Your task to perform on an android device: Show me the alarms in the clock app Image 0: 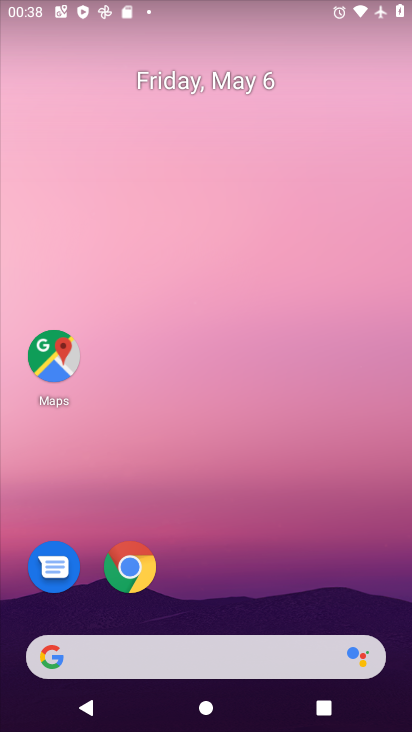
Step 0: drag from (242, 593) to (247, 106)
Your task to perform on an android device: Show me the alarms in the clock app Image 1: 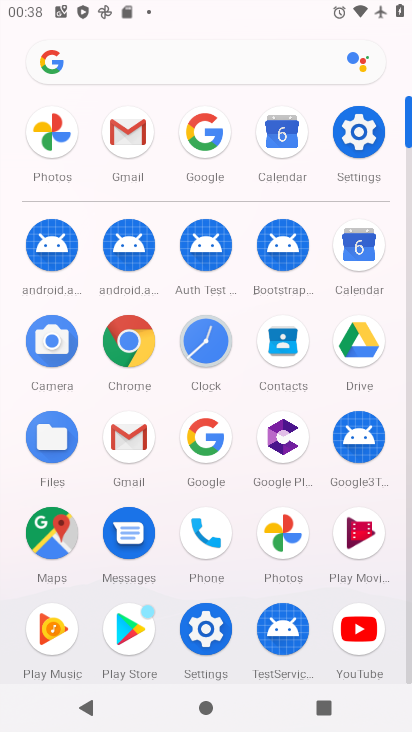
Step 1: click (209, 348)
Your task to perform on an android device: Show me the alarms in the clock app Image 2: 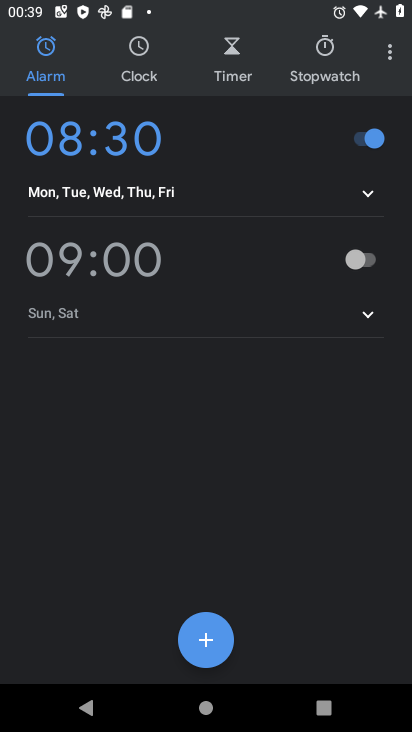
Step 2: click (393, 53)
Your task to perform on an android device: Show me the alarms in the clock app Image 3: 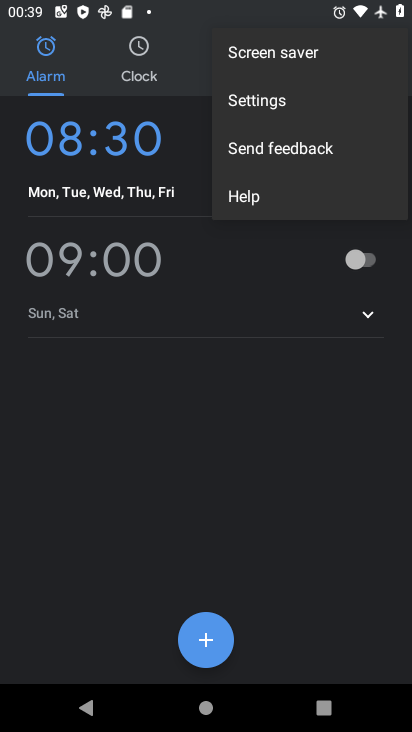
Step 3: click (174, 405)
Your task to perform on an android device: Show me the alarms in the clock app Image 4: 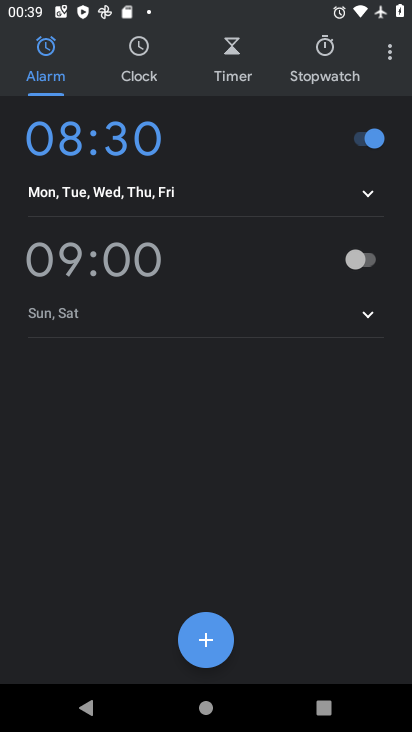
Step 4: click (183, 402)
Your task to perform on an android device: Show me the alarms in the clock app Image 5: 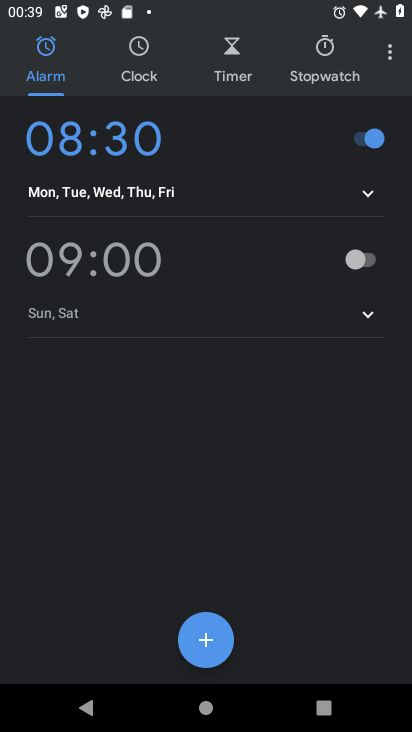
Step 5: task complete